Your task to perform on an android device: create a new album in the google photos Image 0: 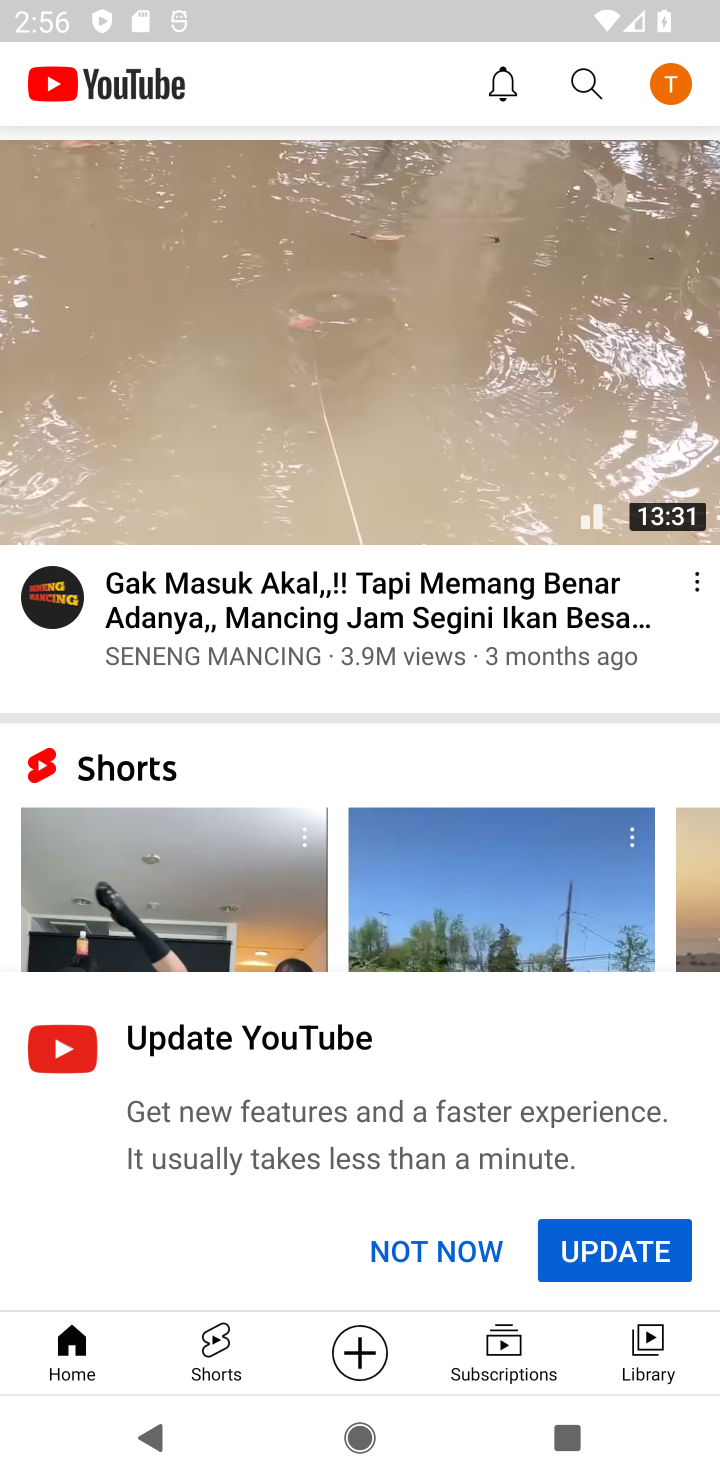
Step 0: press home button
Your task to perform on an android device: create a new album in the google photos Image 1: 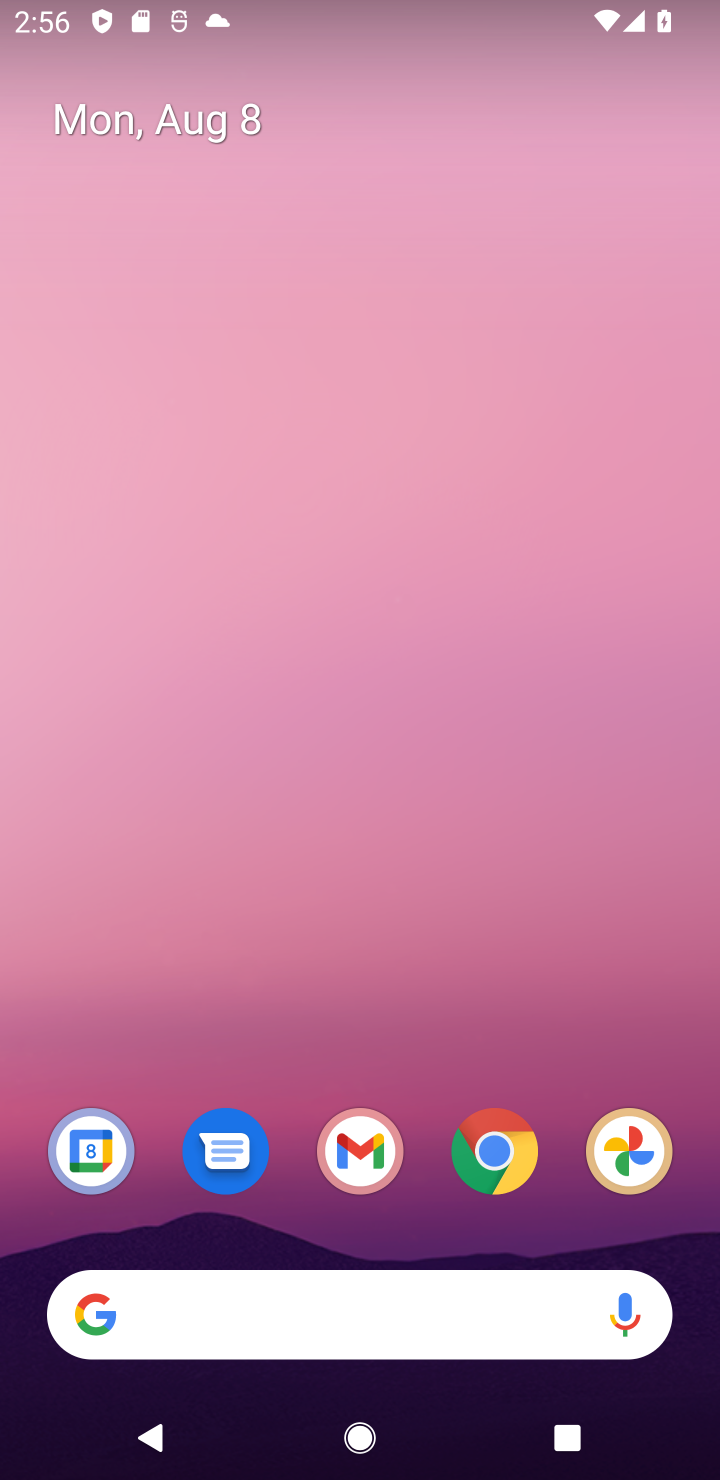
Step 1: drag from (299, 914) to (266, 13)
Your task to perform on an android device: create a new album in the google photos Image 2: 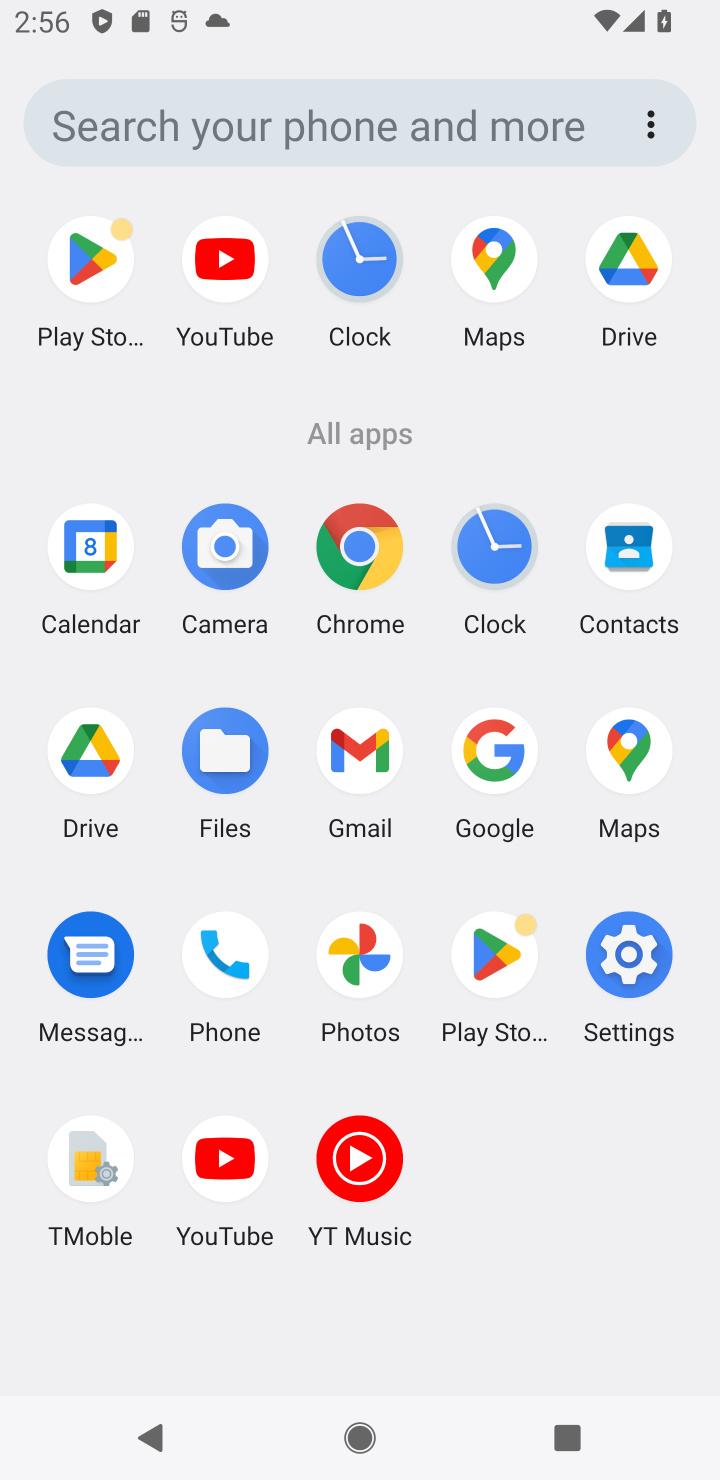
Step 2: click (378, 962)
Your task to perform on an android device: create a new album in the google photos Image 3: 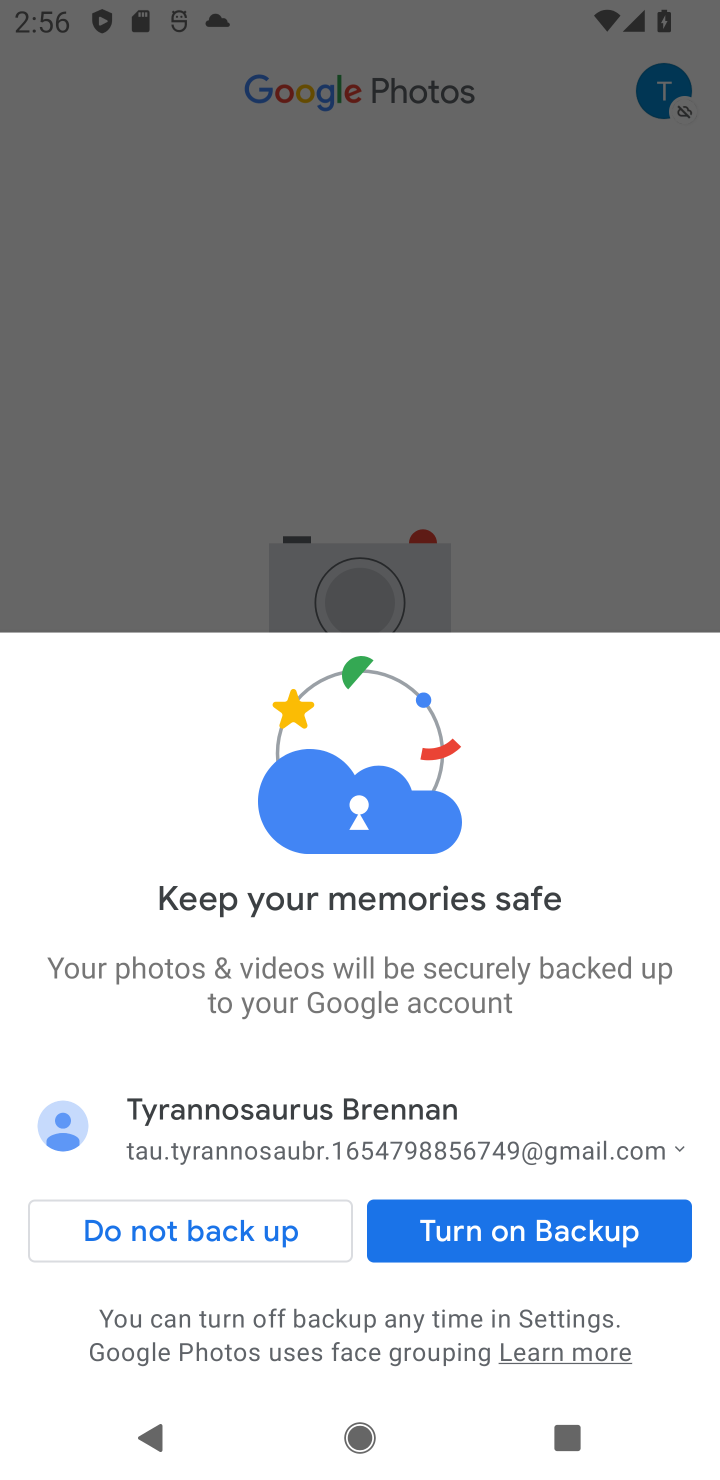
Step 3: click (211, 1246)
Your task to perform on an android device: create a new album in the google photos Image 4: 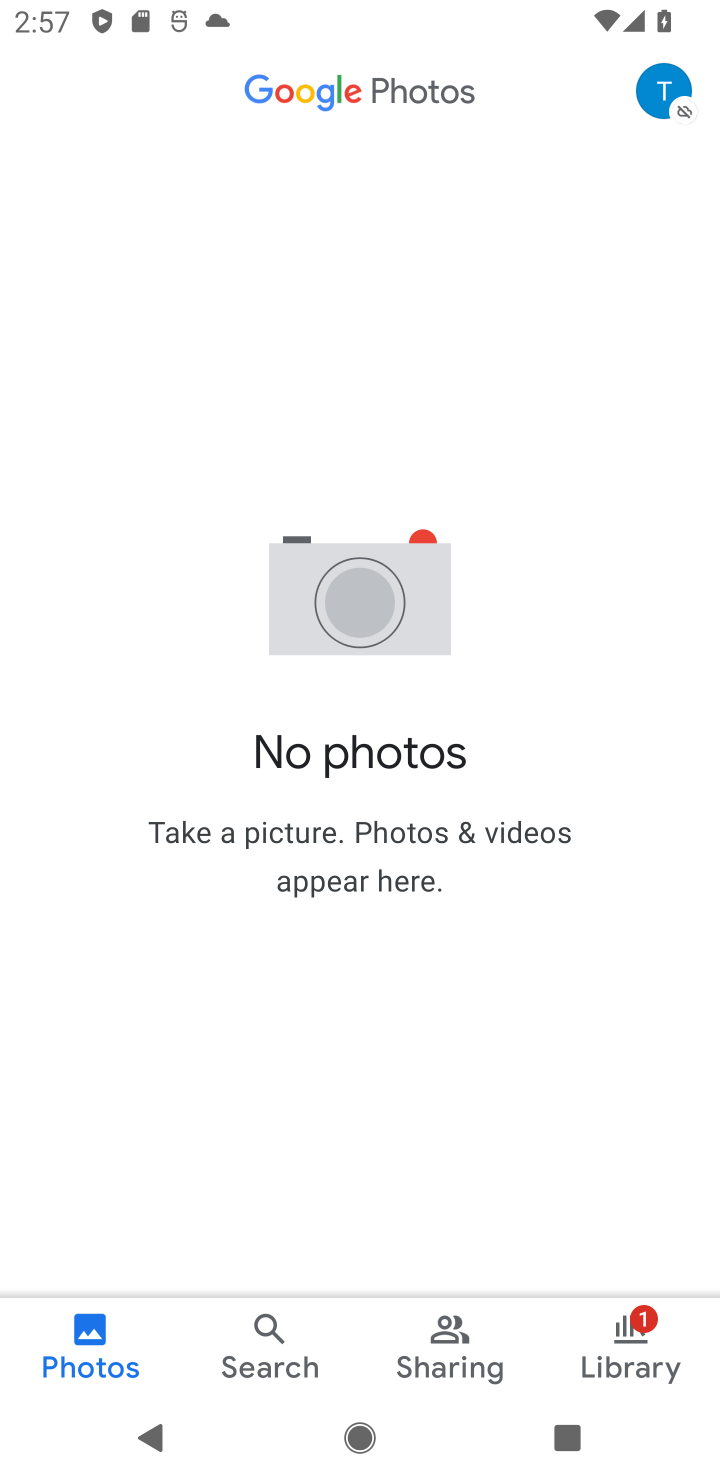
Step 4: click (675, 91)
Your task to perform on an android device: create a new album in the google photos Image 5: 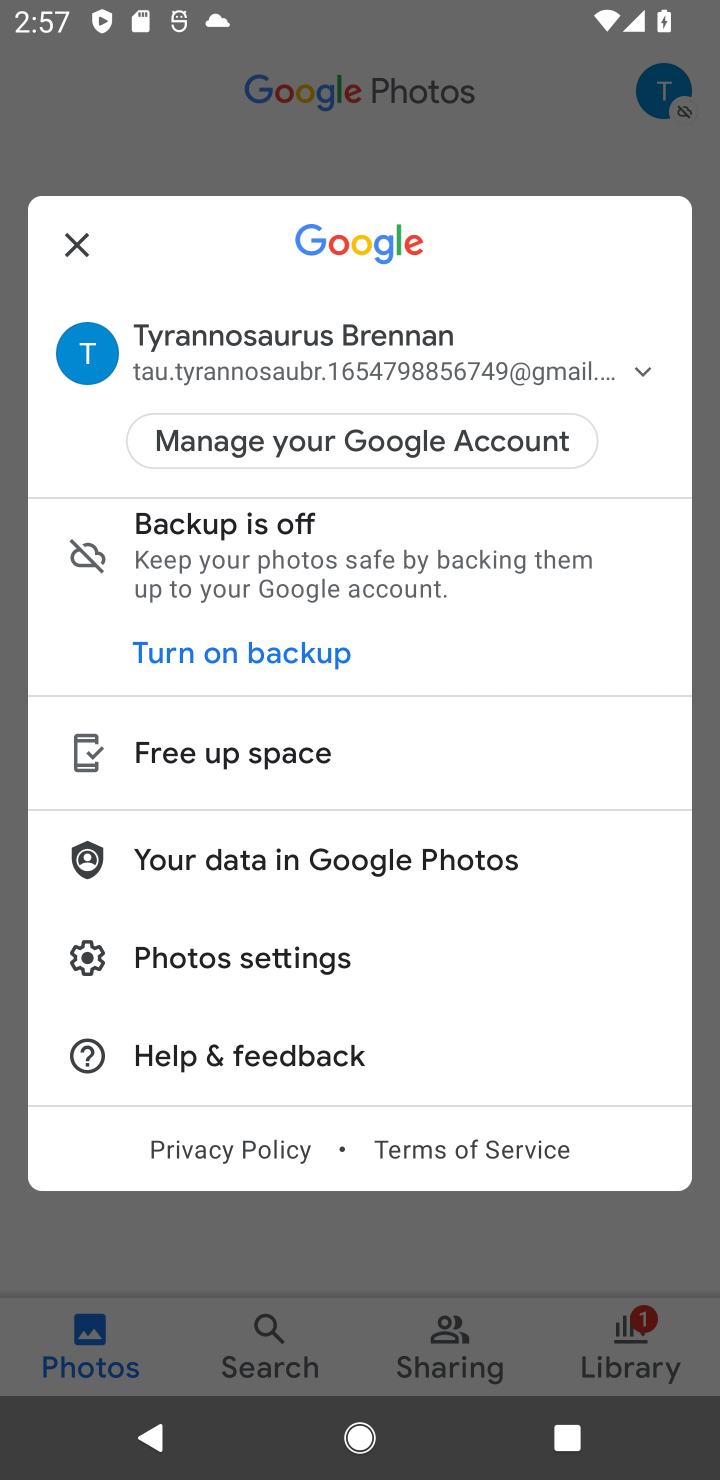
Step 5: click (443, 179)
Your task to perform on an android device: create a new album in the google photos Image 6: 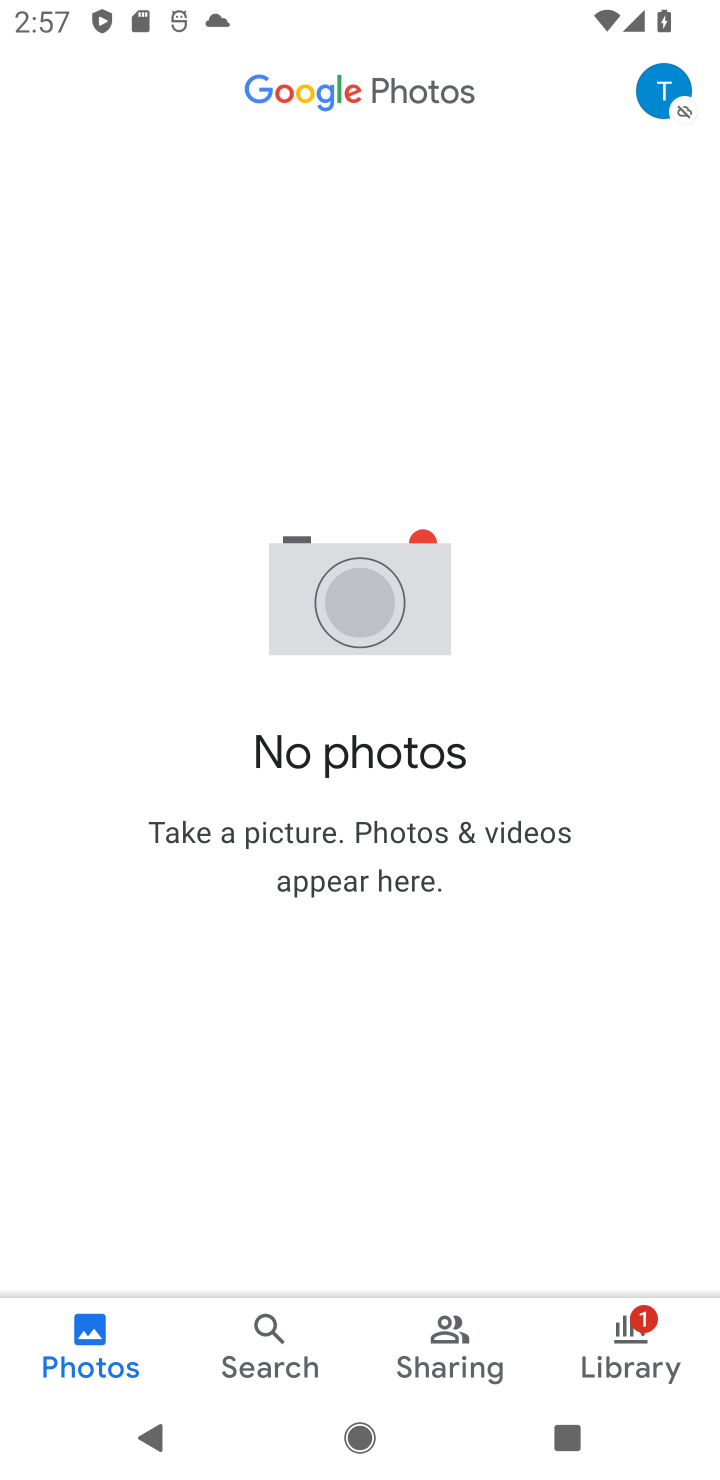
Step 6: click (234, 1359)
Your task to perform on an android device: create a new album in the google photos Image 7: 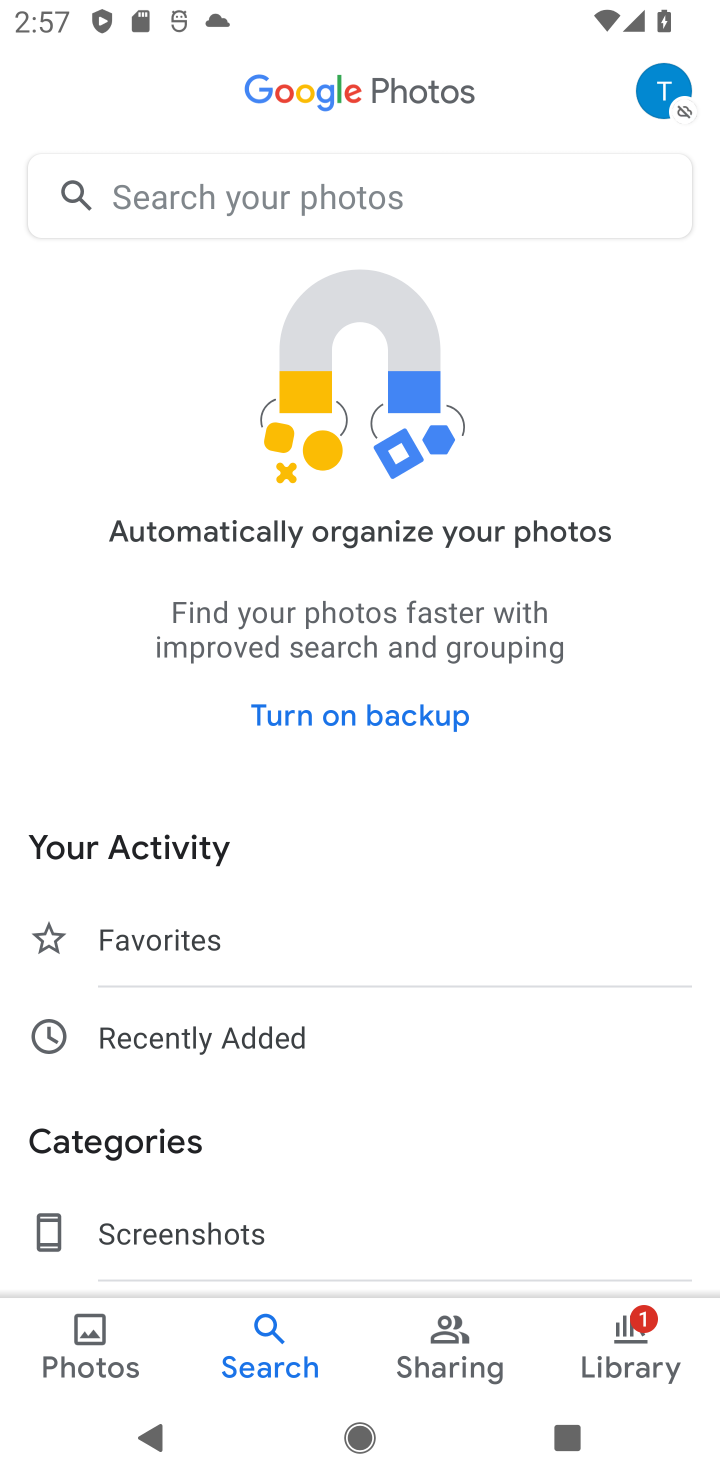
Step 7: click (406, 1344)
Your task to perform on an android device: create a new album in the google photos Image 8: 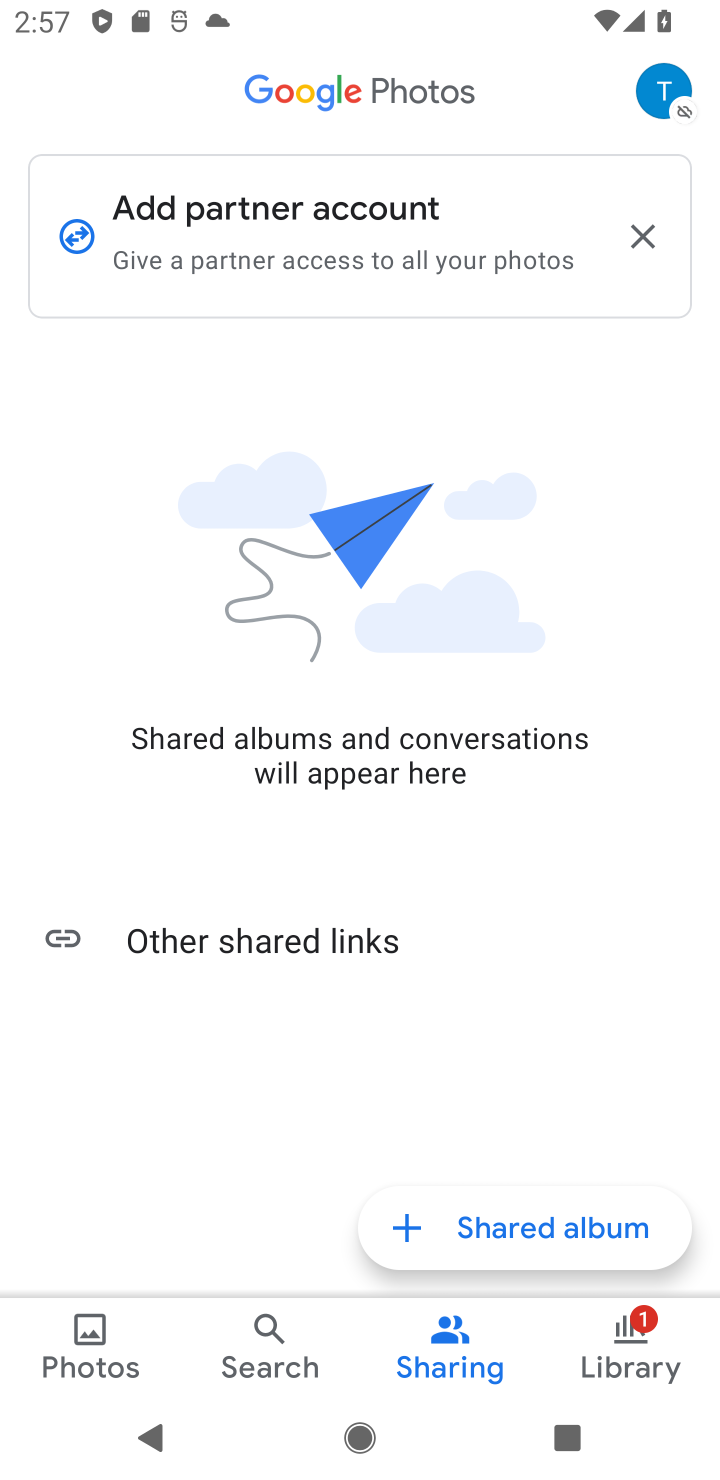
Step 8: click (577, 1335)
Your task to perform on an android device: create a new album in the google photos Image 9: 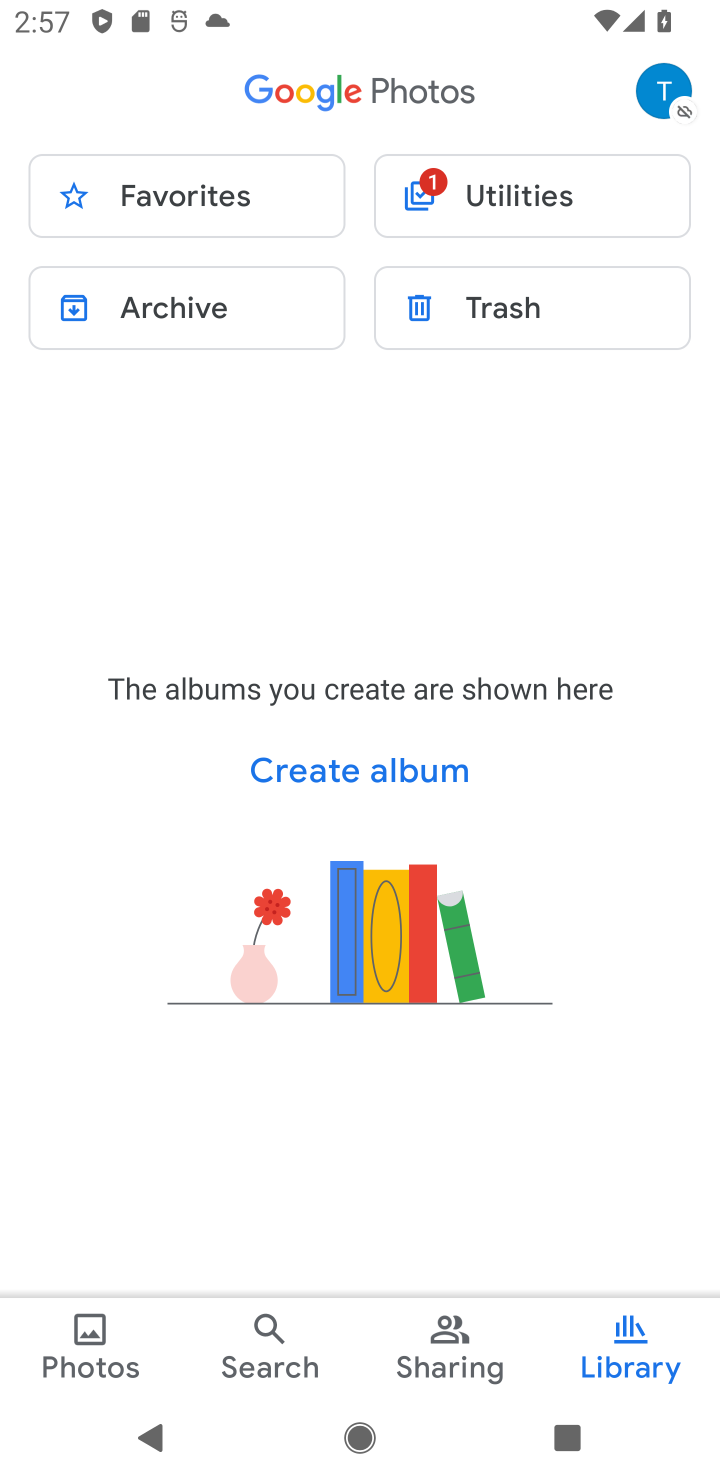
Step 9: click (112, 1311)
Your task to perform on an android device: create a new album in the google photos Image 10: 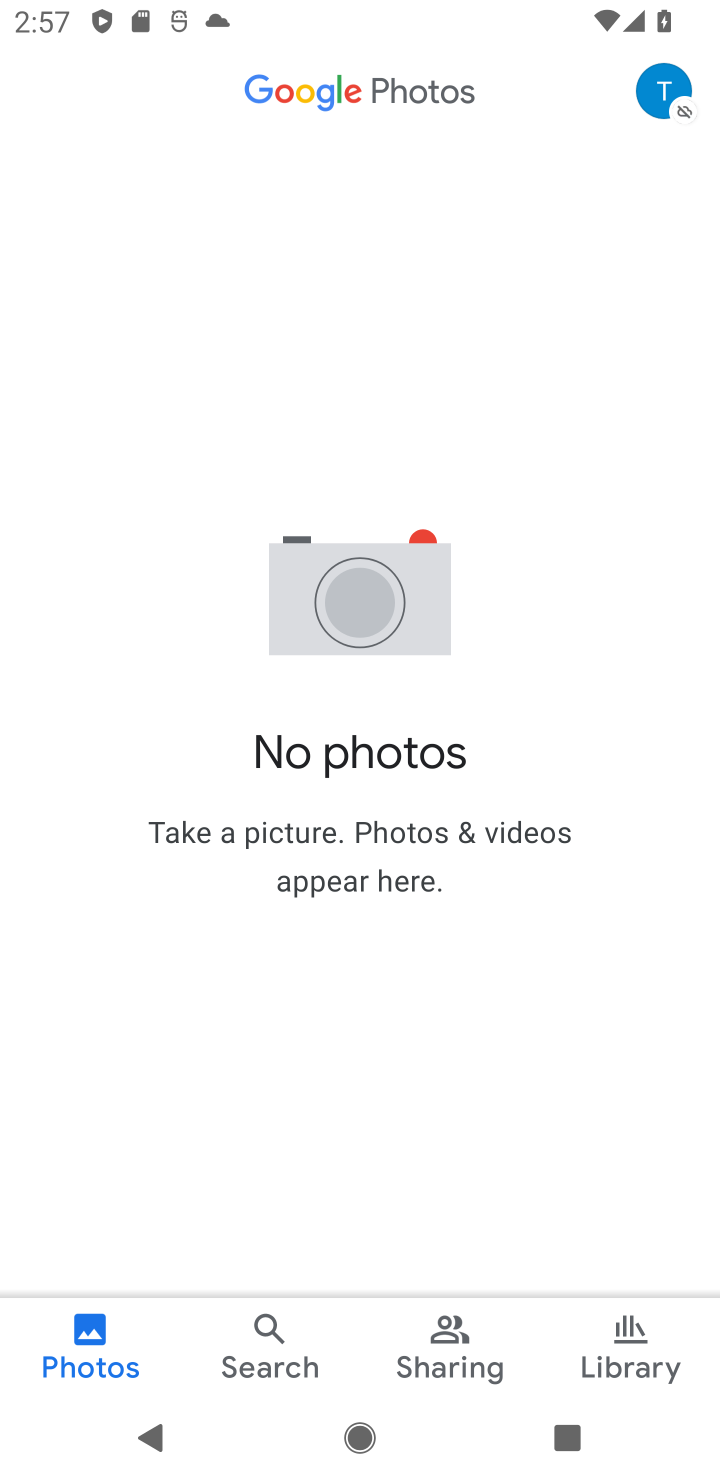
Step 10: task complete